Your task to perform on an android device: open app "Spotify" Image 0: 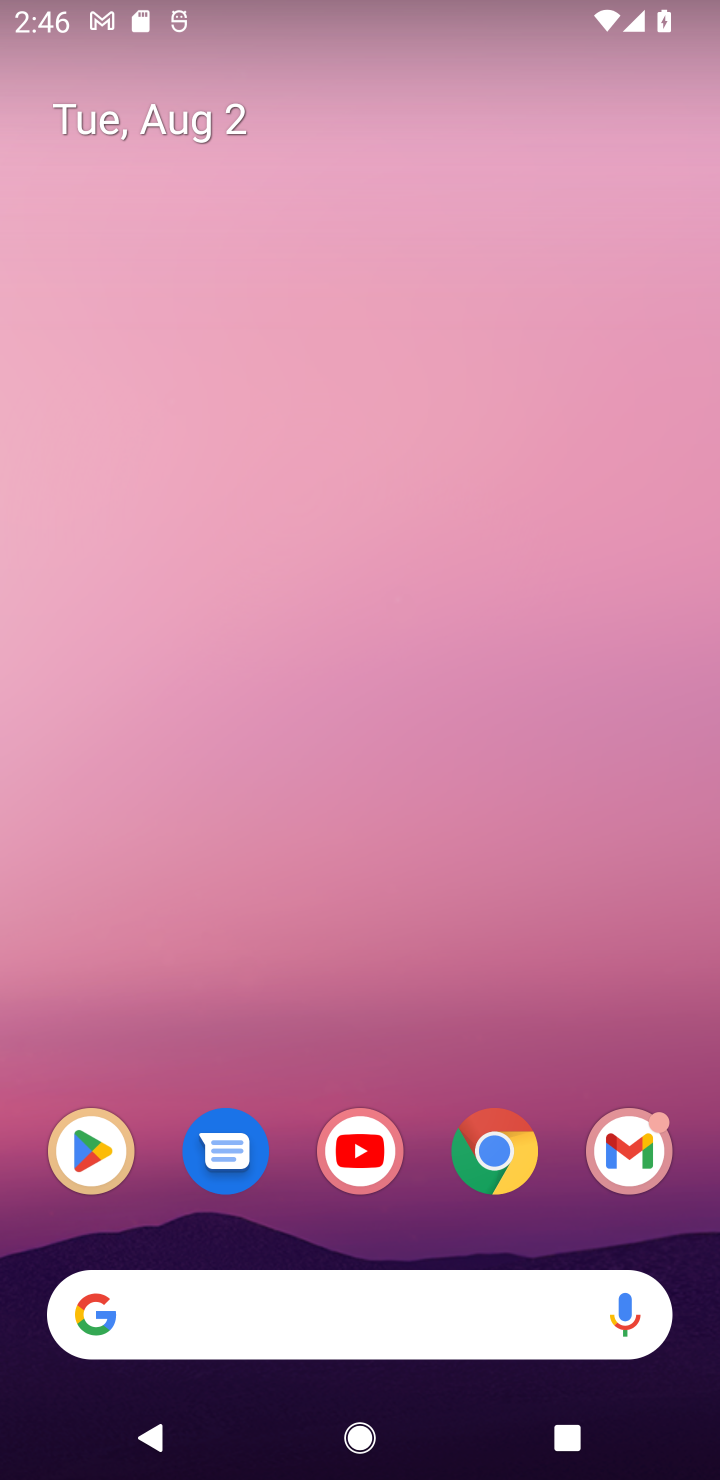
Step 0: click (83, 1154)
Your task to perform on an android device: open app "Spotify" Image 1: 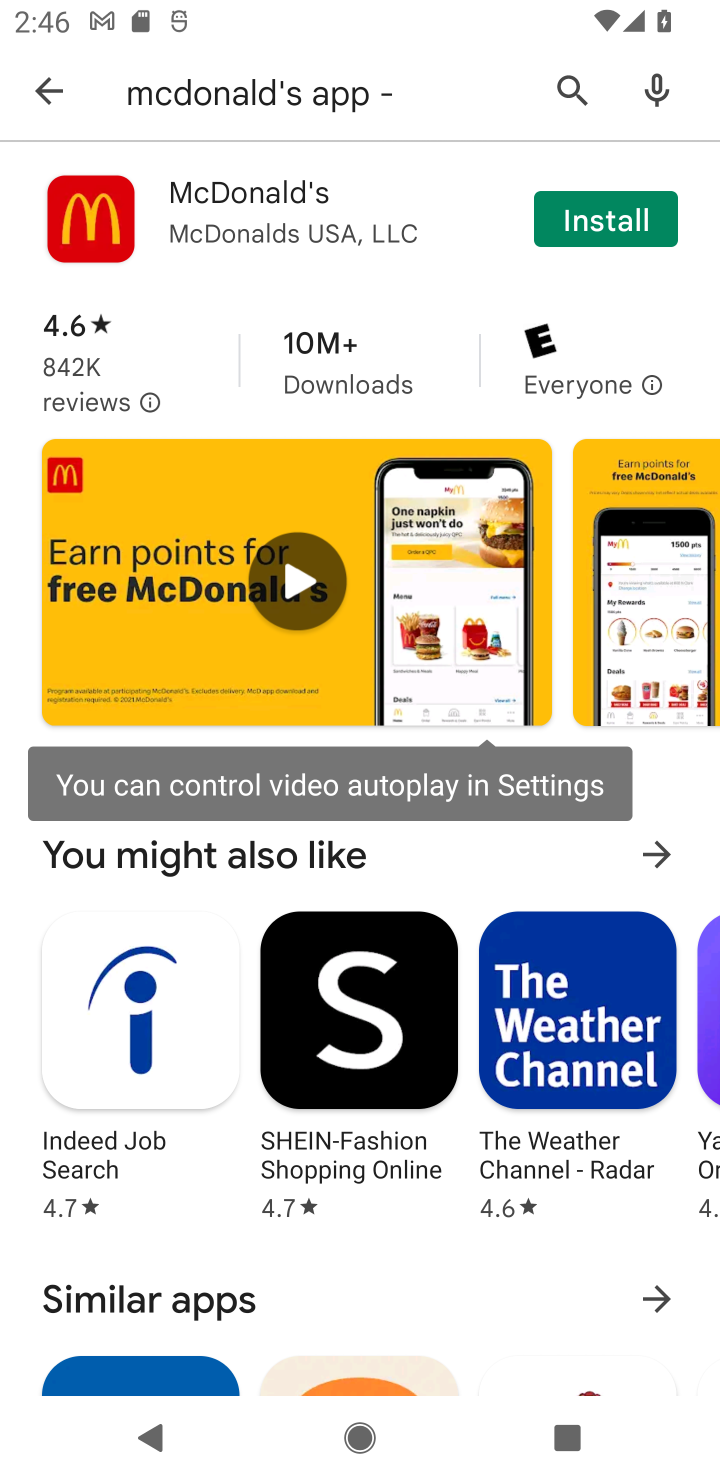
Step 1: click (52, 92)
Your task to perform on an android device: open app "Spotify" Image 2: 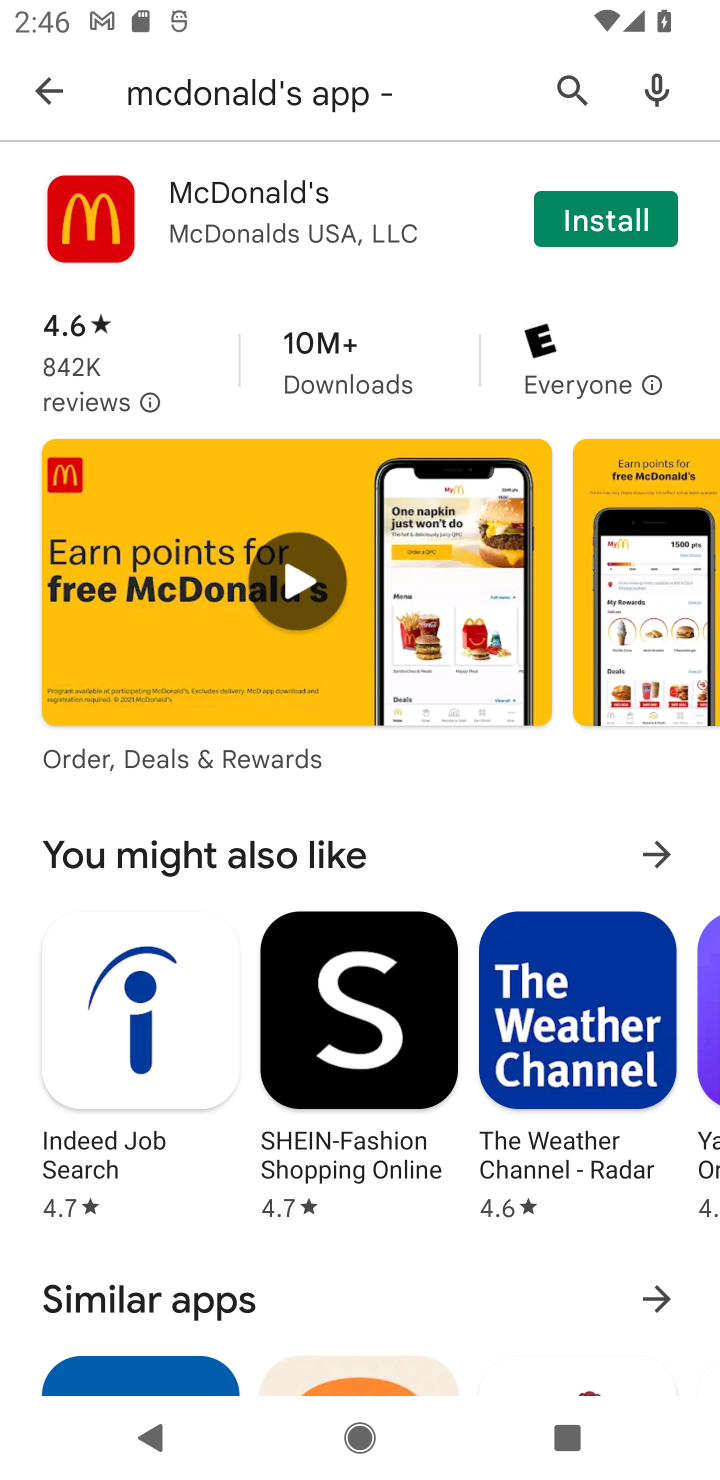
Step 2: press back button
Your task to perform on an android device: open app "Spotify" Image 3: 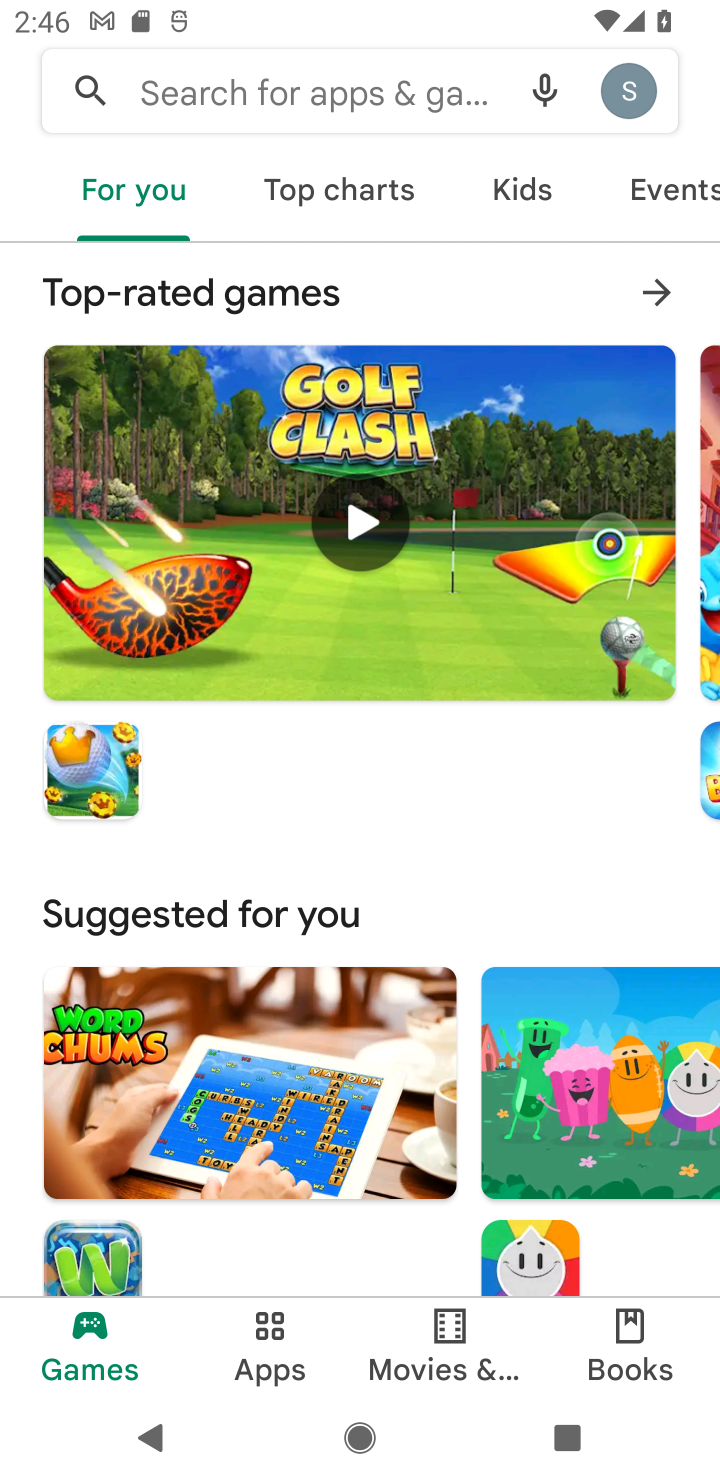
Step 3: click (317, 100)
Your task to perform on an android device: open app "Spotify" Image 4: 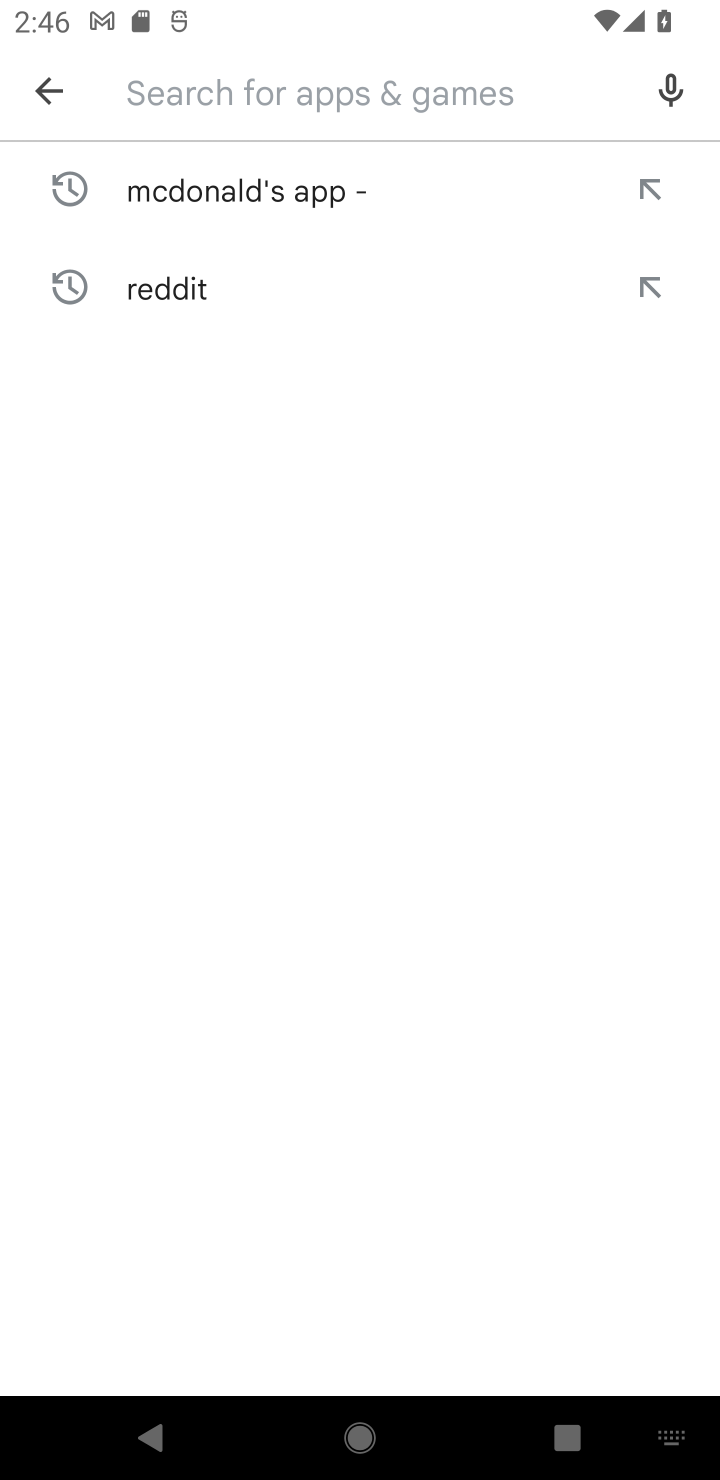
Step 4: type "Spotify"
Your task to perform on an android device: open app "Spotify" Image 5: 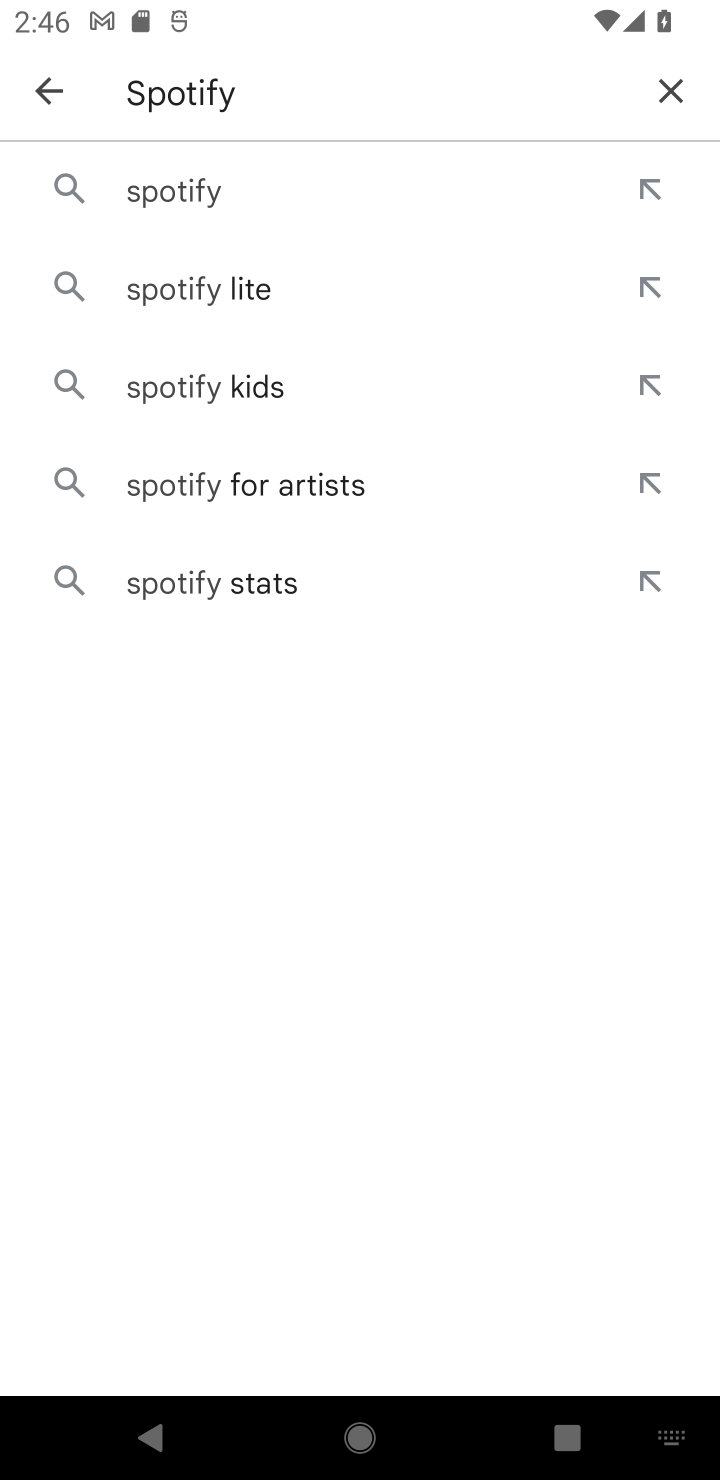
Step 5: click (205, 203)
Your task to perform on an android device: open app "Spotify" Image 6: 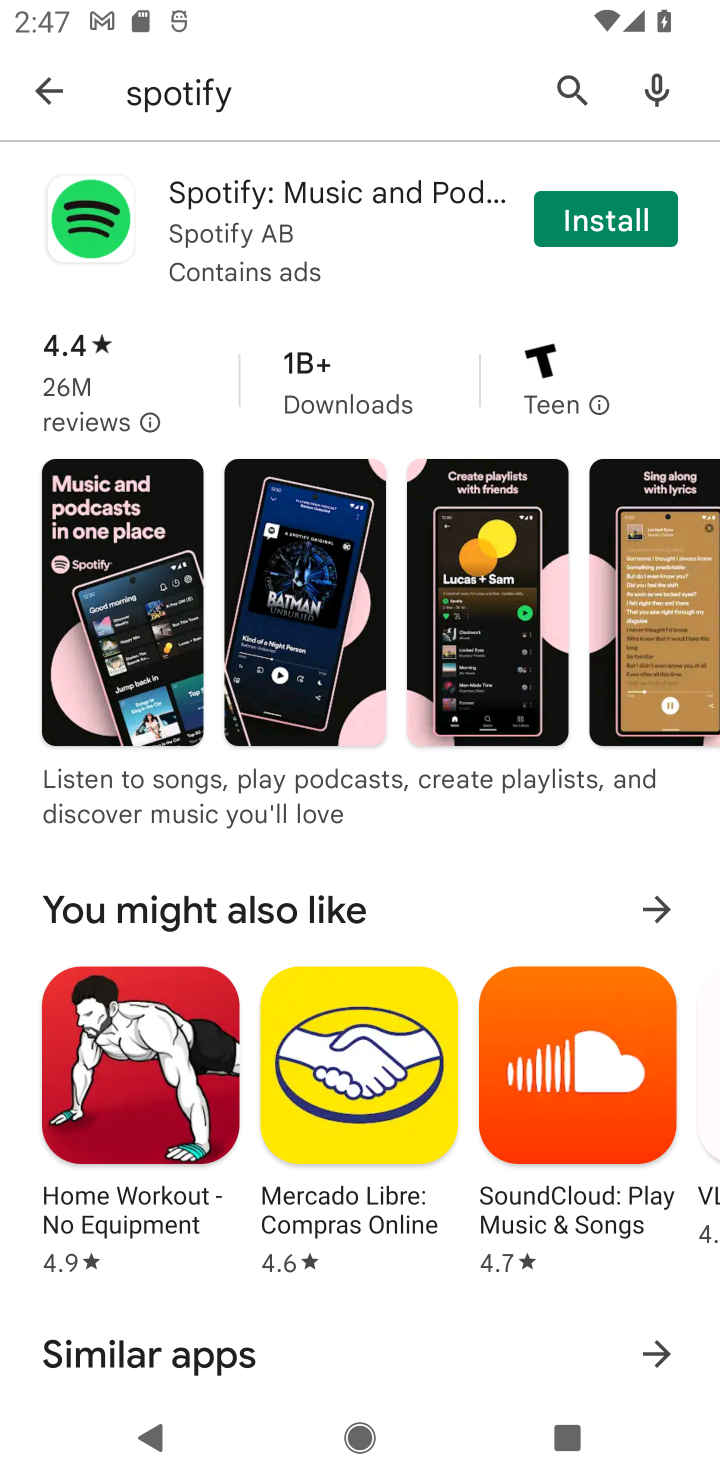
Step 6: task complete